Your task to perform on an android device: Go to display settings Image 0: 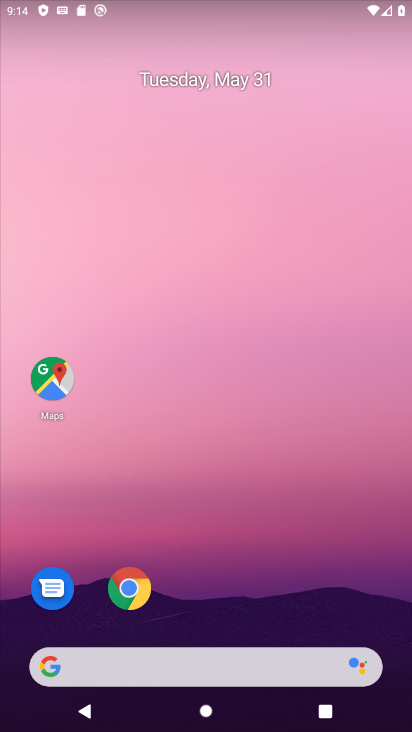
Step 0: drag from (159, 551) to (145, 65)
Your task to perform on an android device: Go to display settings Image 1: 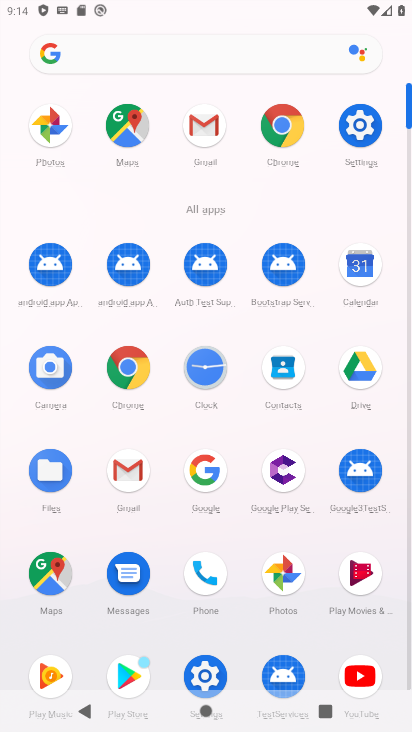
Step 1: click (357, 134)
Your task to perform on an android device: Go to display settings Image 2: 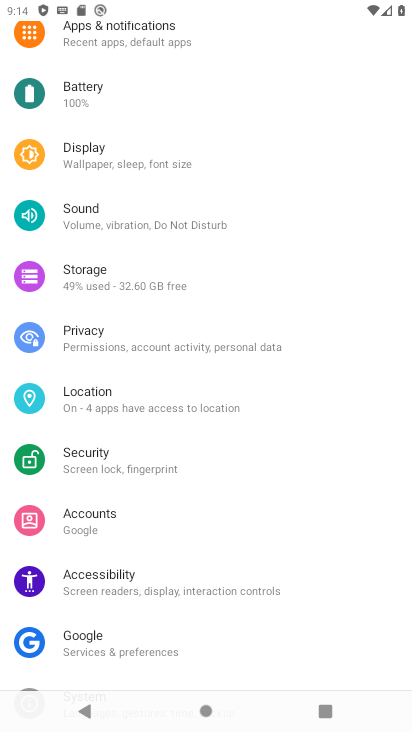
Step 2: click (161, 153)
Your task to perform on an android device: Go to display settings Image 3: 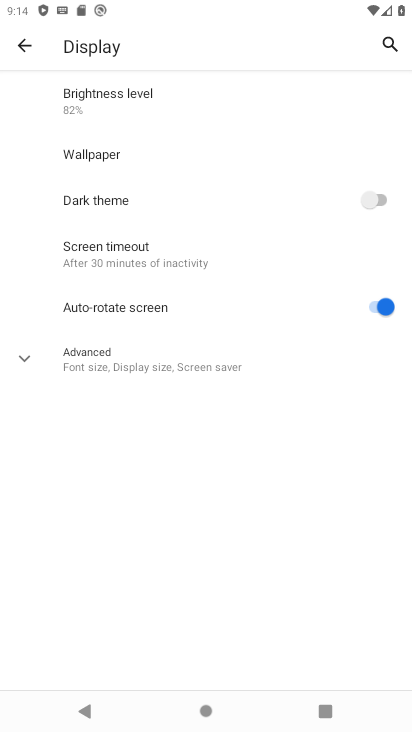
Step 3: task complete